Your task to perform on an android device: see creations saved in the google photos Image 0: 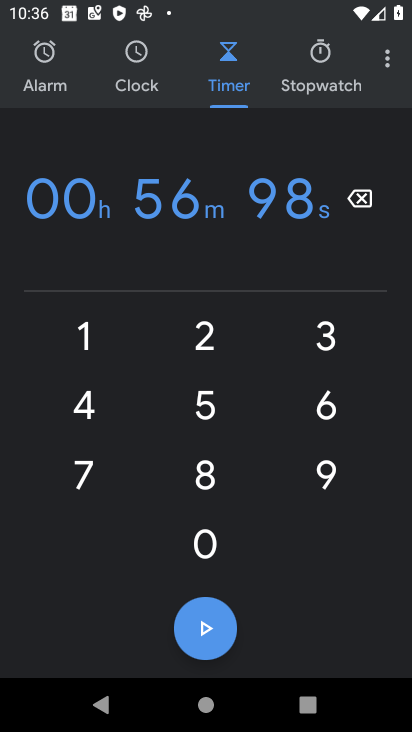
Step 0: press home button
Your task to perform on an android device: see creations saved in the google photos Image 1: 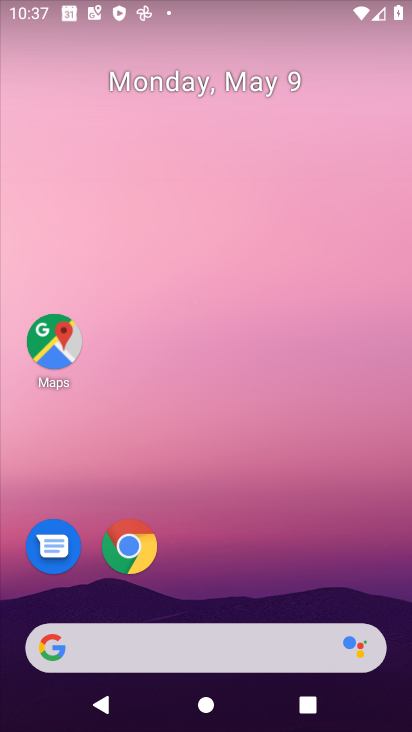
Step 1: drag from (247, 707) to (334, 19)
Your task to perform on an android device: see creations saved in the google photos Image 2: 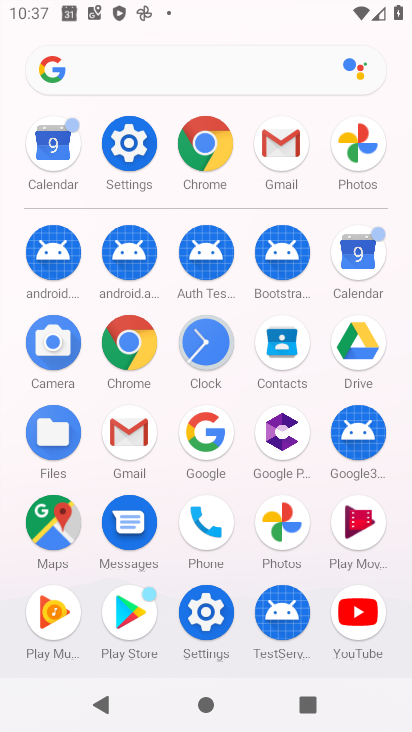
Step 2: click (366, 151)
Your task to perform on an android device: see creations saved in the google photos Image 3: 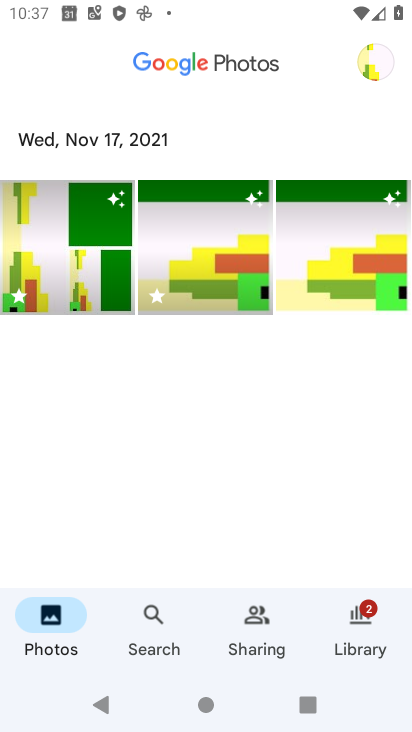
Step 3: click (140, 603)
Your task to perform on an android device: see creations saved in the google photos Image 4: 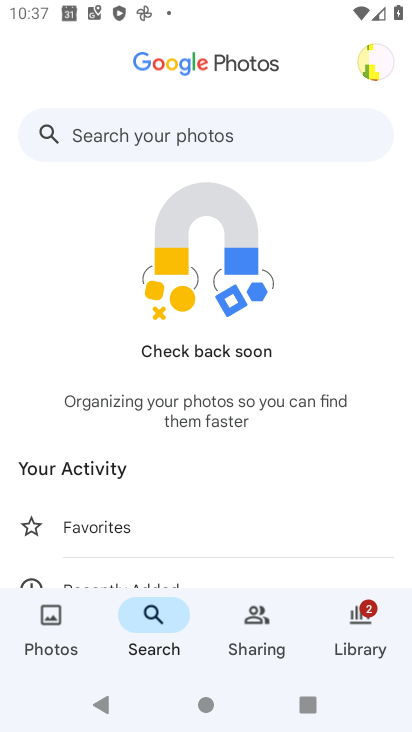
Step 4: click (267, 143)
Your task to perform on an android device: see creations saved in the google photos Image 5: 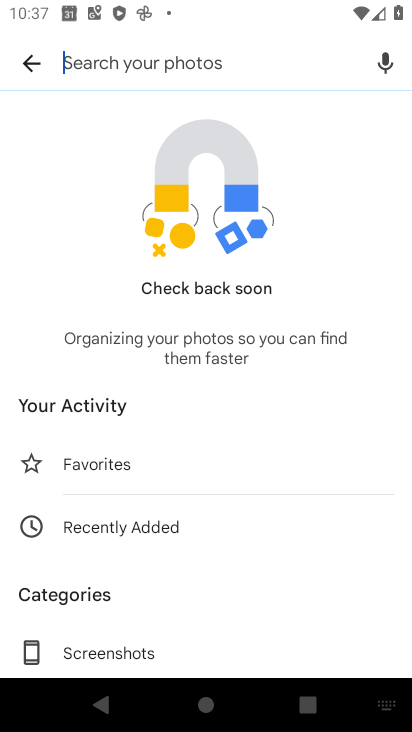
Step 5: drag from (235, 539) to (168, 225)
Your task to perform on an android device: see creations saved in the google photos Image 6: 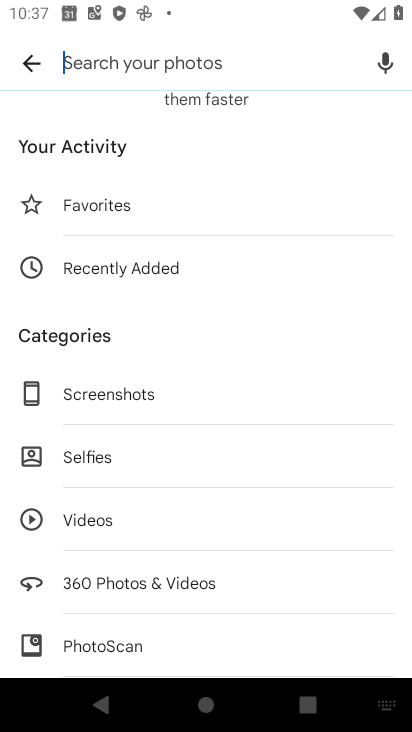
Step 6: drag from (250, 632) to (272, 138)
Your task to perform on an android device: see creations saved in the google photos Image 7: 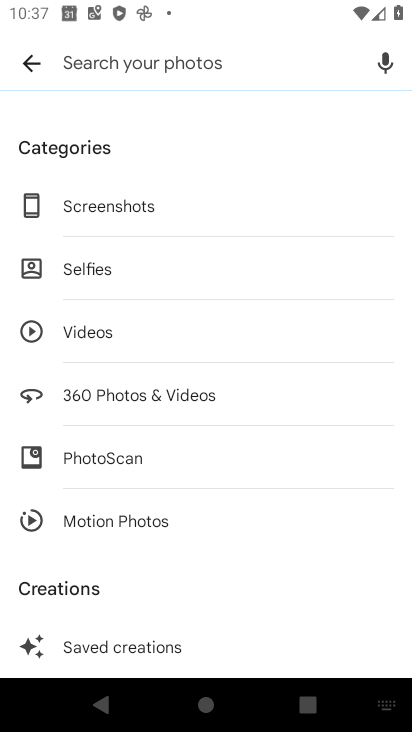
Step 7: drag from (208, 544) to (239, 157)
Your task to perform on an android device: see creations saved in the google photos Image 8: 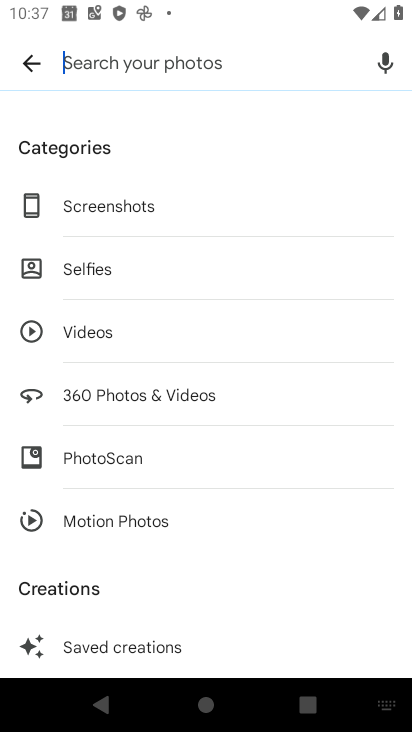
Step 8: click (139, 646)
Your task to perform on an android device: see creations saved in the google photos Image 9: 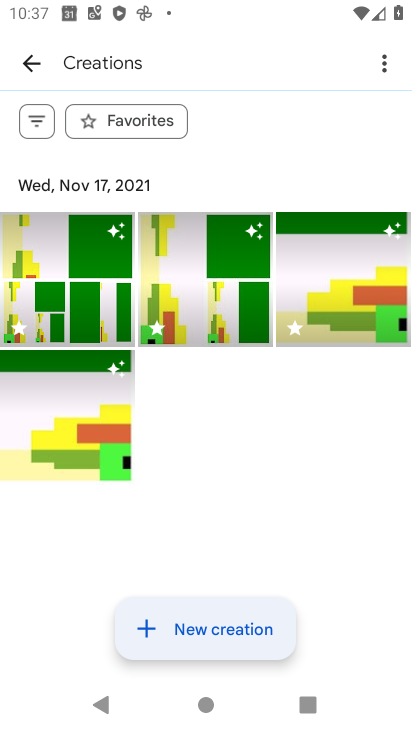
Step 9: task complete